Your task to perform on an android device: install app "Spotify: Music and Podcasts" Image 0: 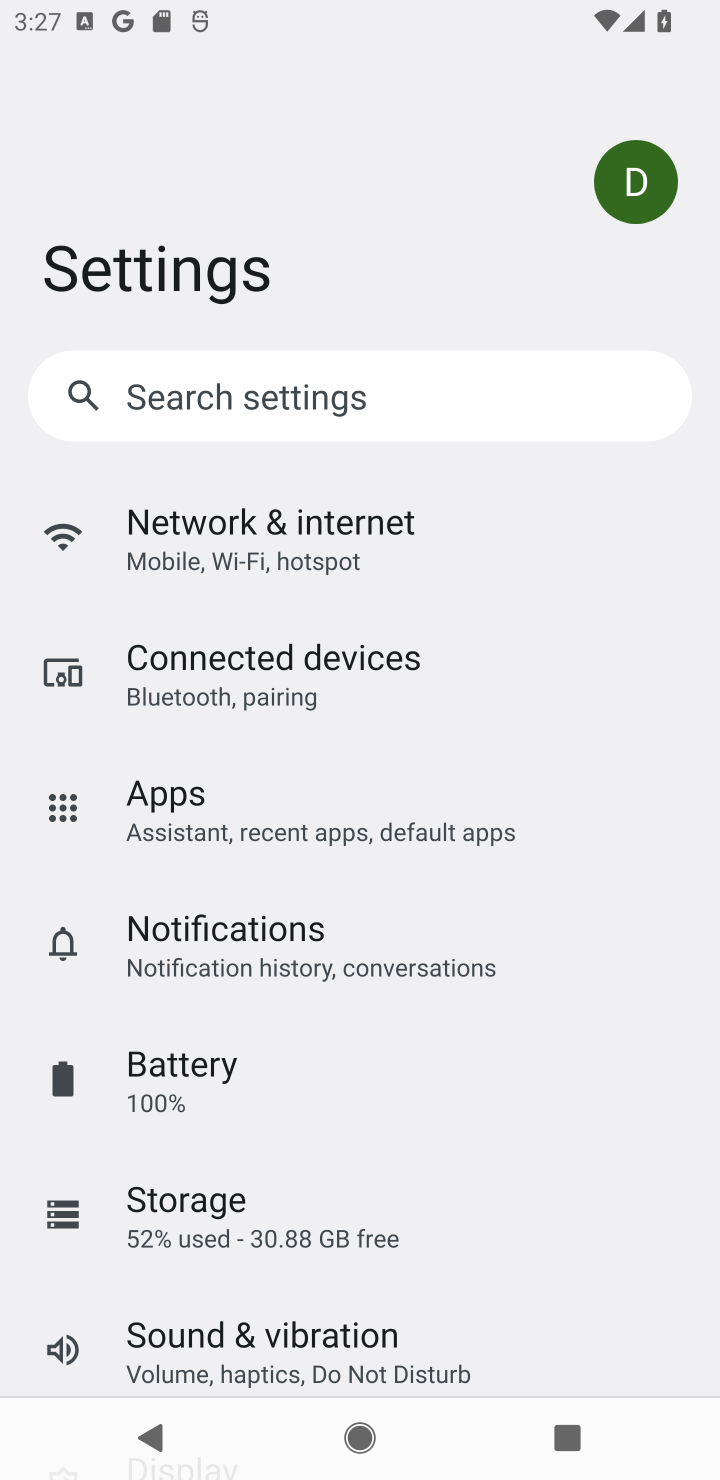
Step 0: press home button
Your task to perform on an android device: install app "Spotify: Music and Podcasts" Image 1: 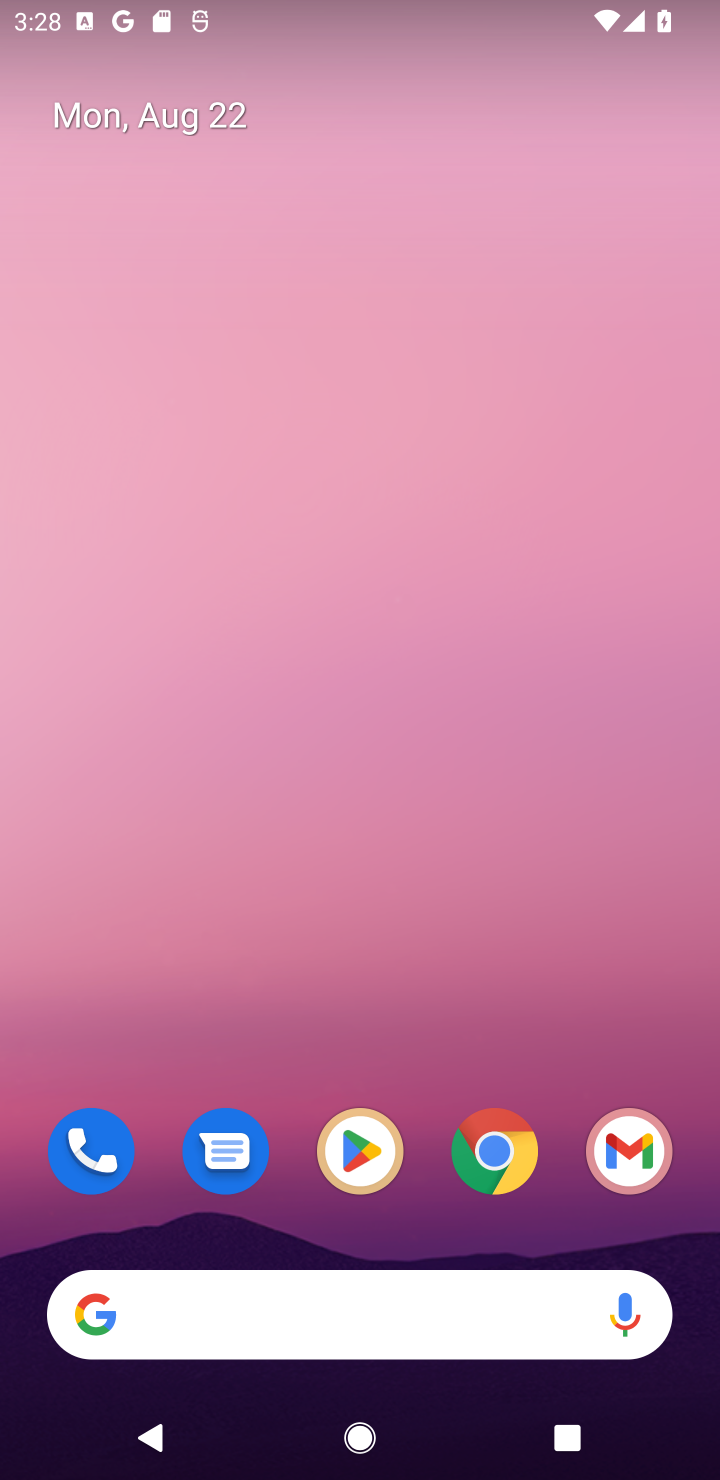
Step 1: click (351, 1147)
Your task to perform on an android device: install app "Spotify: Music and Podcasts" Image 2: 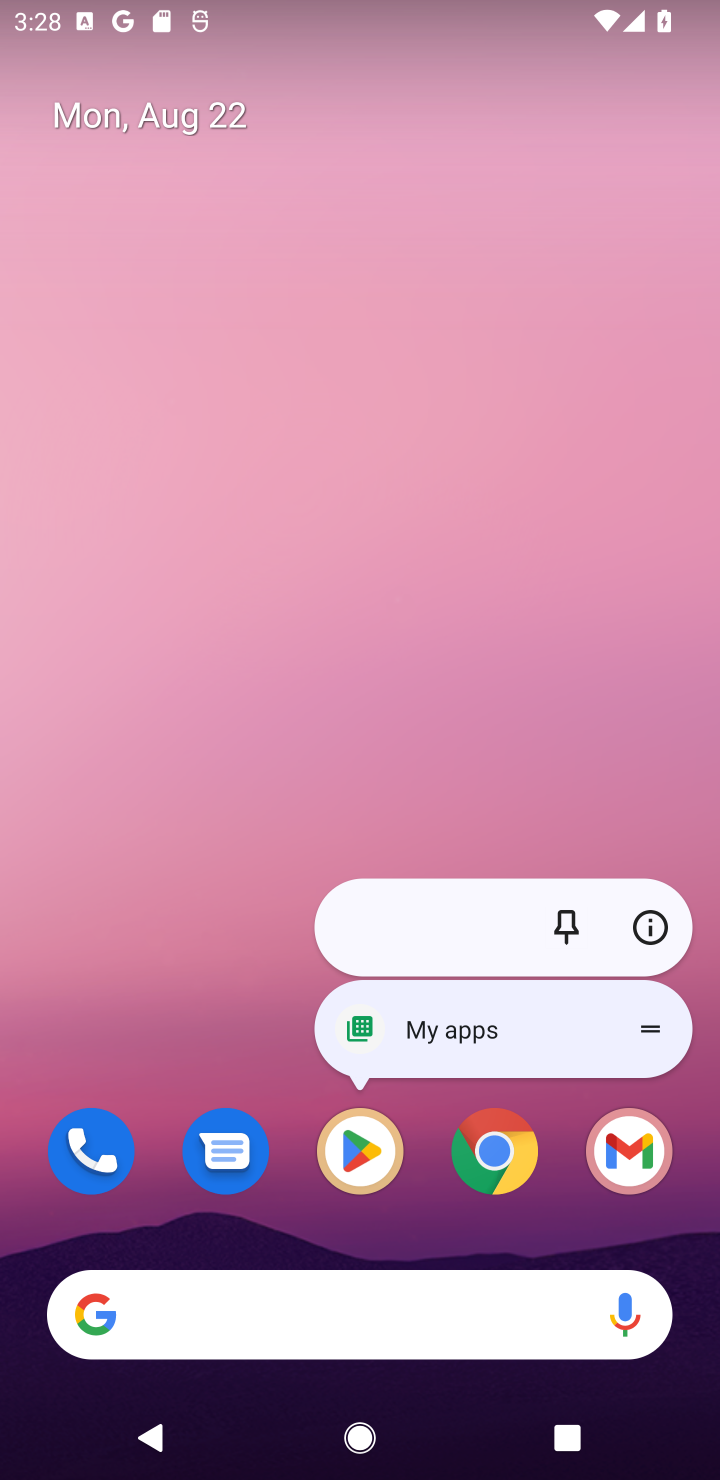
Step 2: click (353, 1147)
Your task to perform on an android device: install app "Spotify: Music and Podcasts" Image 3: 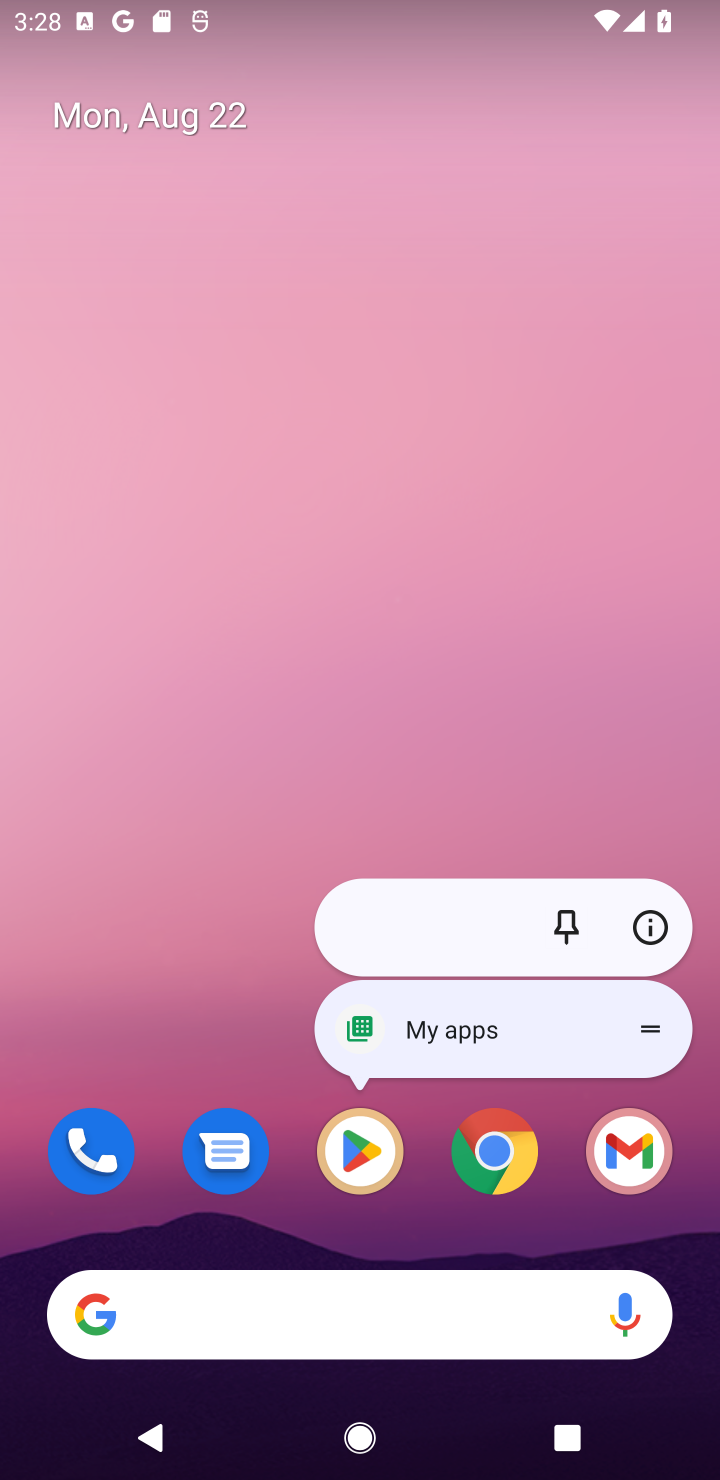
Step 3: click (366, 1163)
Your task to perform on an android device: install app "Spotify: Music and Podcasts" Image 4: 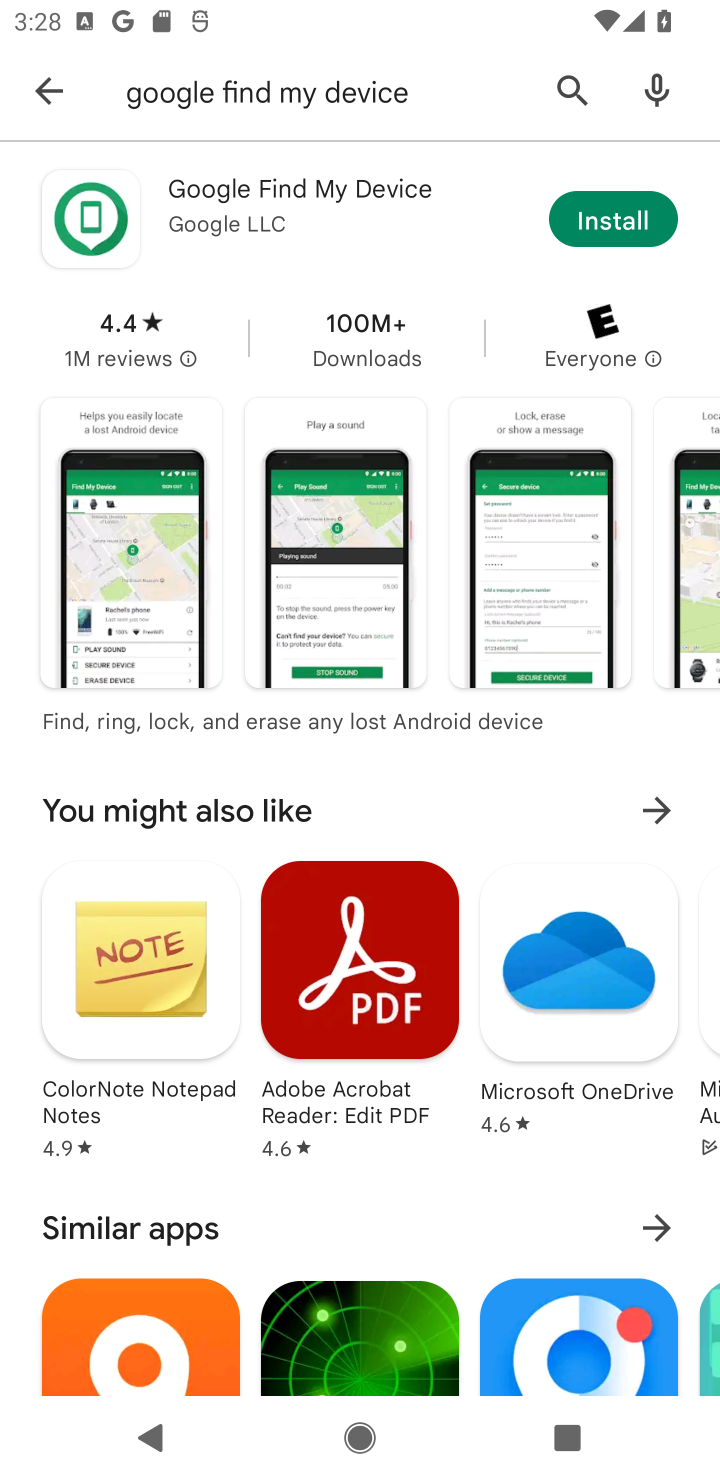
Step 4: click (565, 79)
Your task to perform on an android device: install app "Spotify: Music and Podcasts" Image 5: 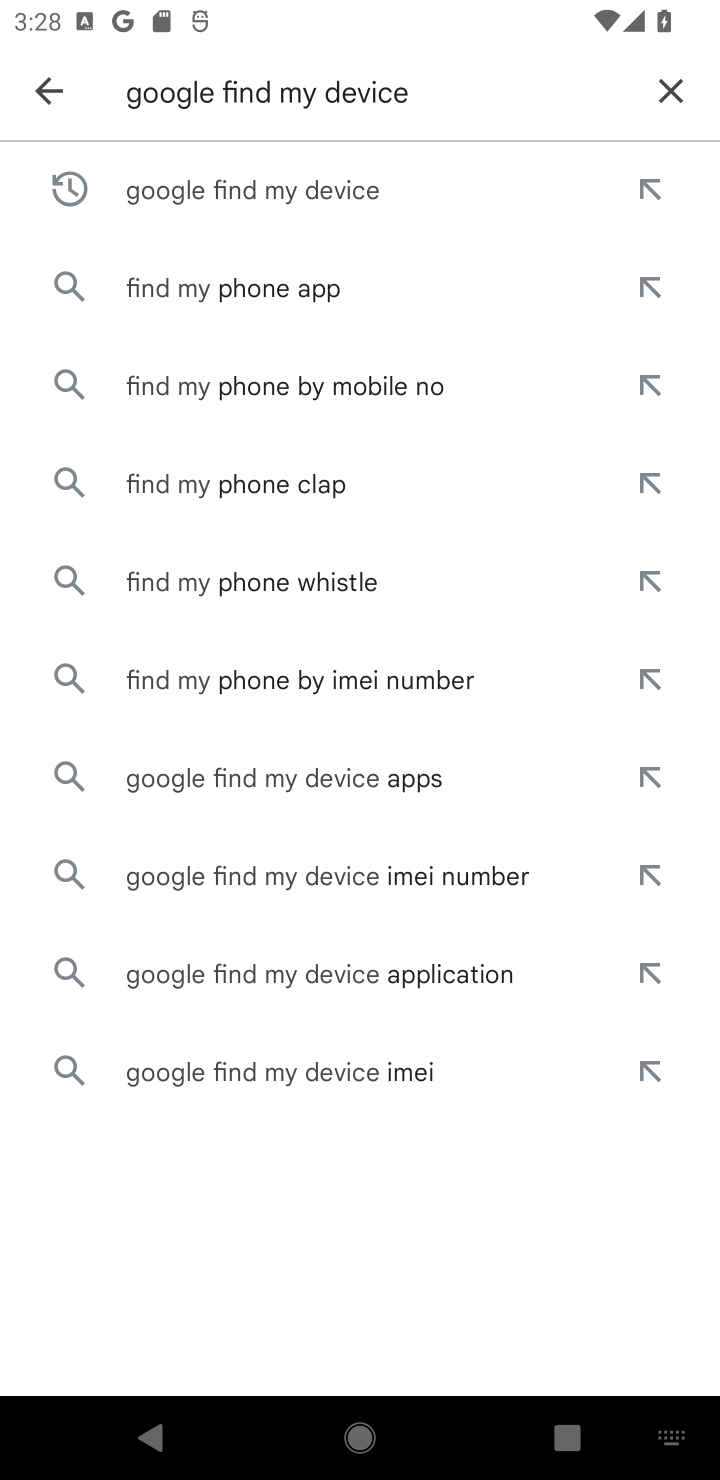
Step 5: click (664, 81)
Your task to perform on an android device: install app "Spotify: Music and Podcasts" Image 6: 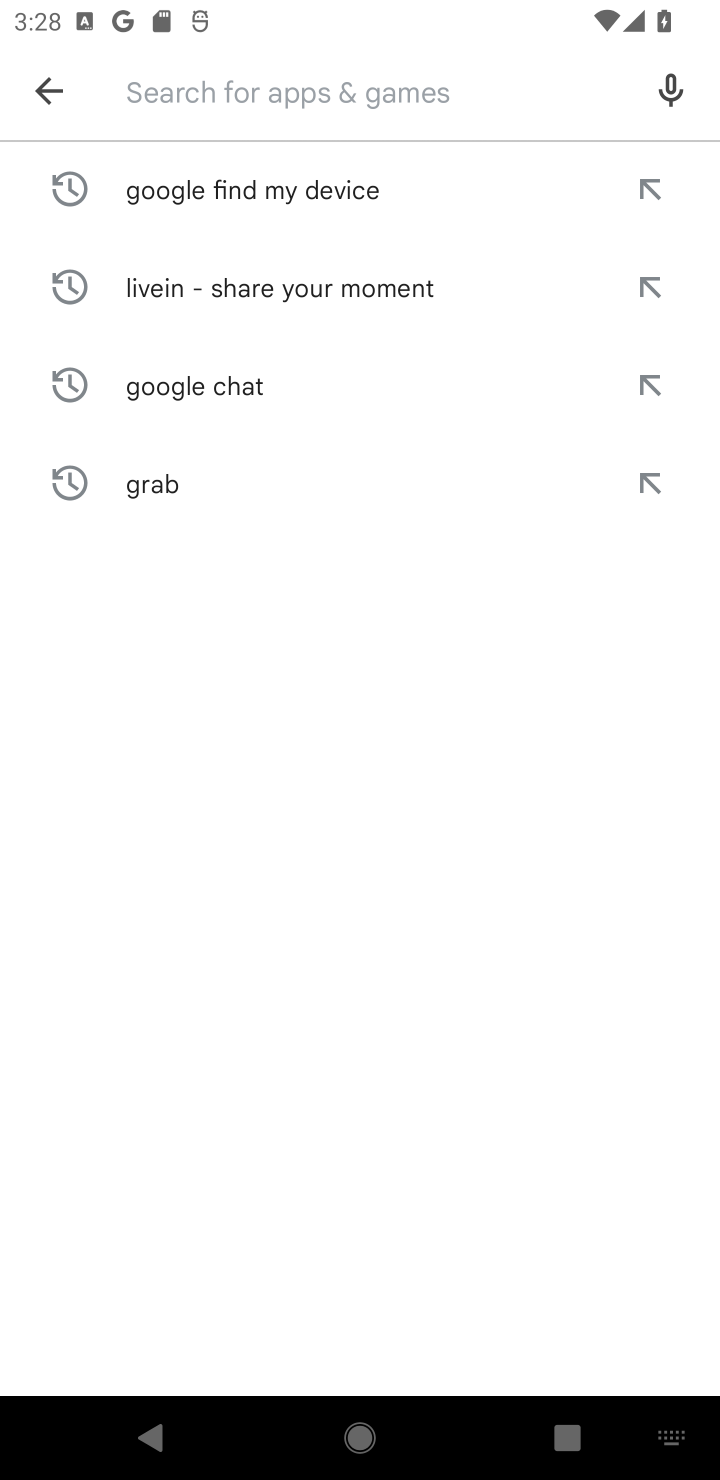
Step 6: type "Spotify: Music and Podcasts"
Your task to perform on an android device: install app "Spotify: Music and Podcasts" Image 7: 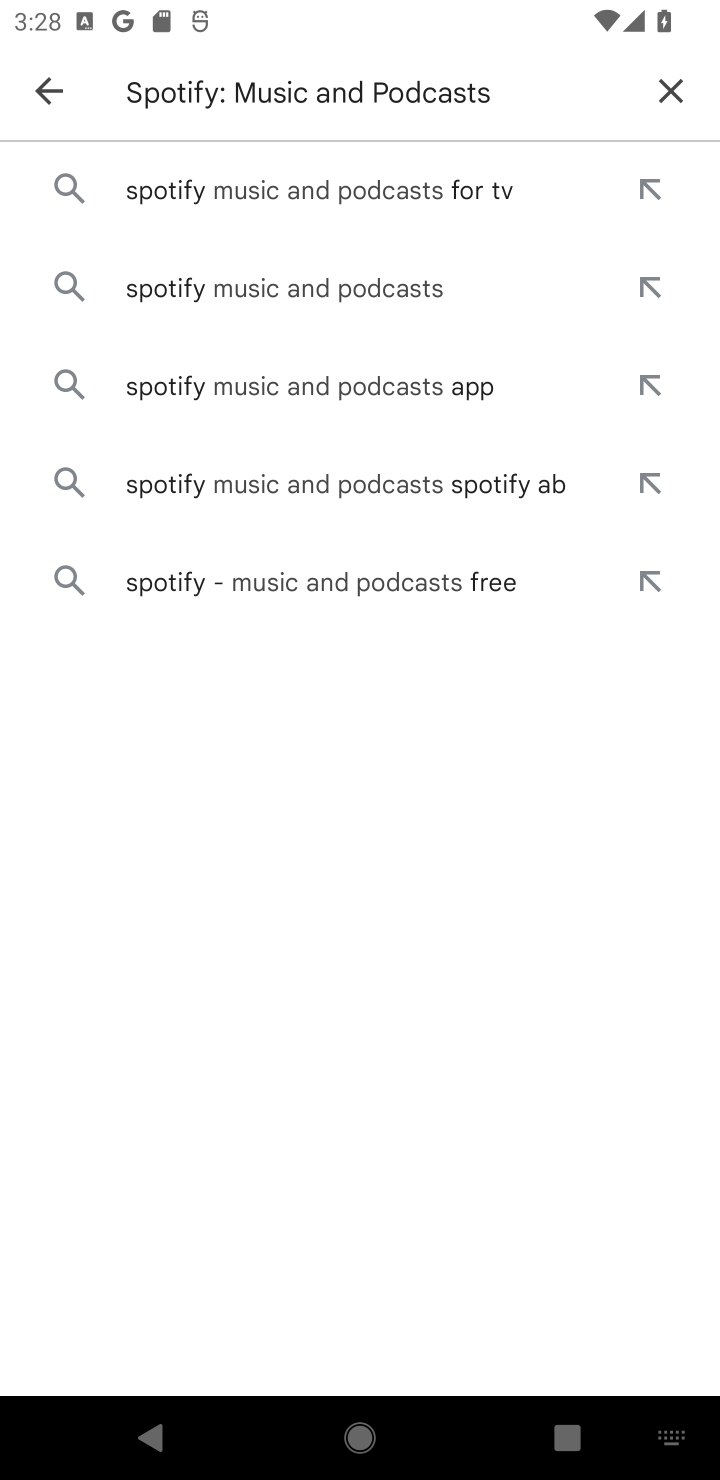
Step 7: click (317, 189)
Your task to perform on an android device: install app "Spotify: Music and Podcasts" Image 8: 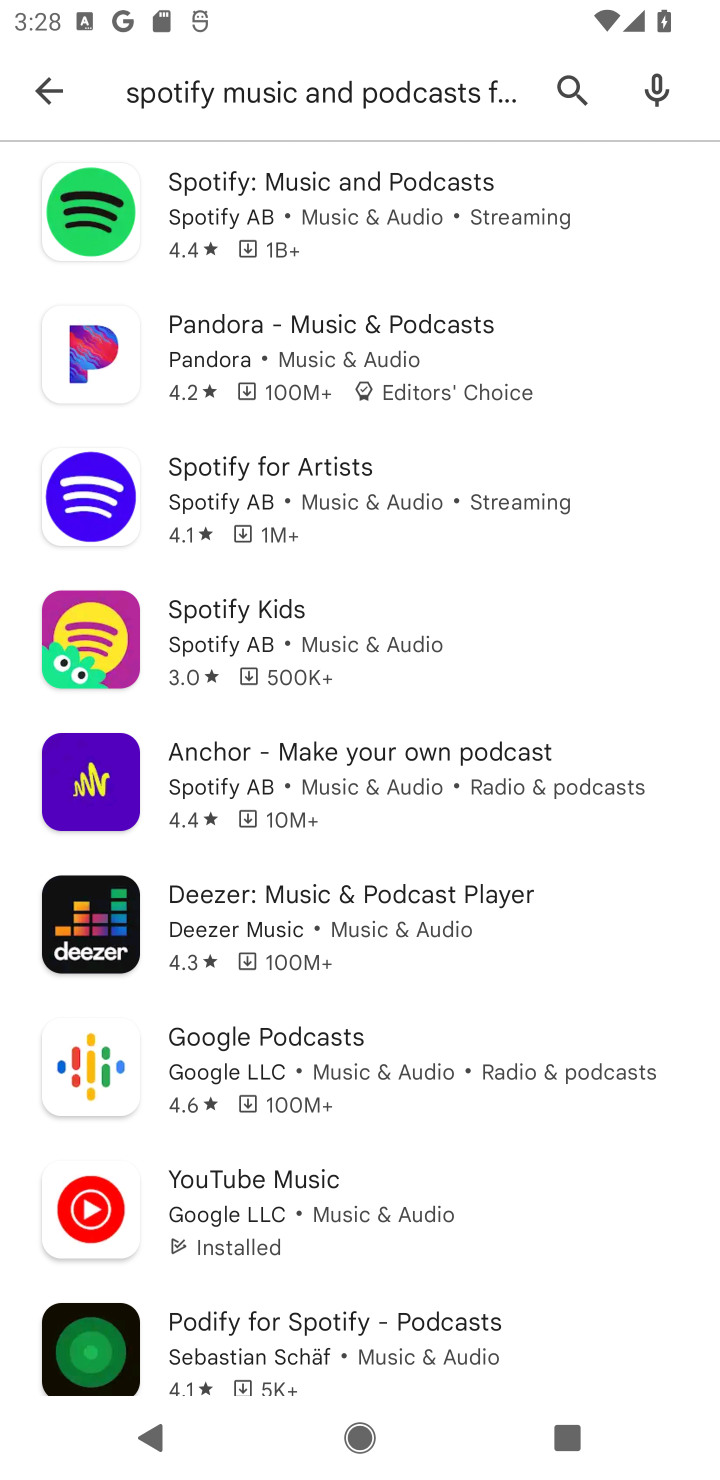
Step 8: click (321, 220)
Your task to perform on an android device: install app "Spotify: Music and Podcasts" Image 9: 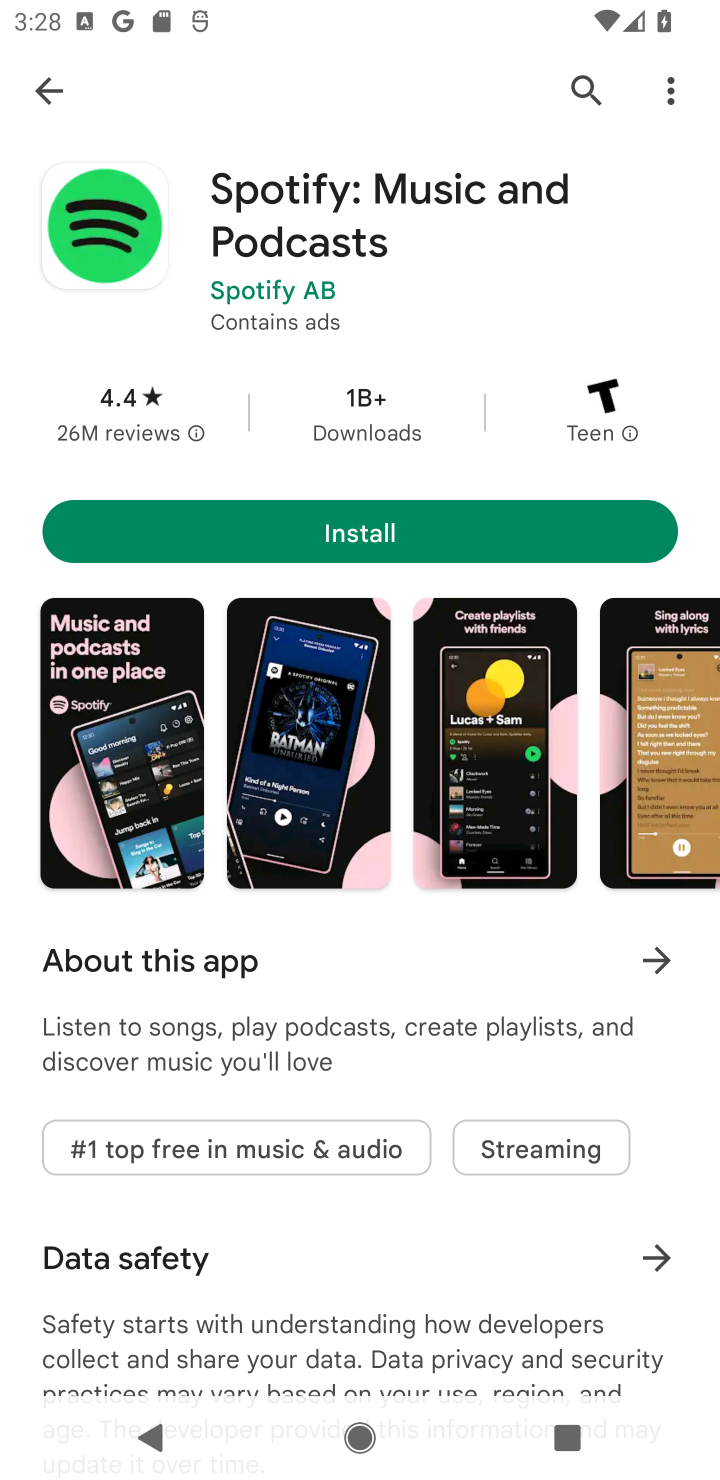
Step 9: click (363, 521)
Your task to perform on an android device: install app "Spotify: Music and Podcasts" Image 10: 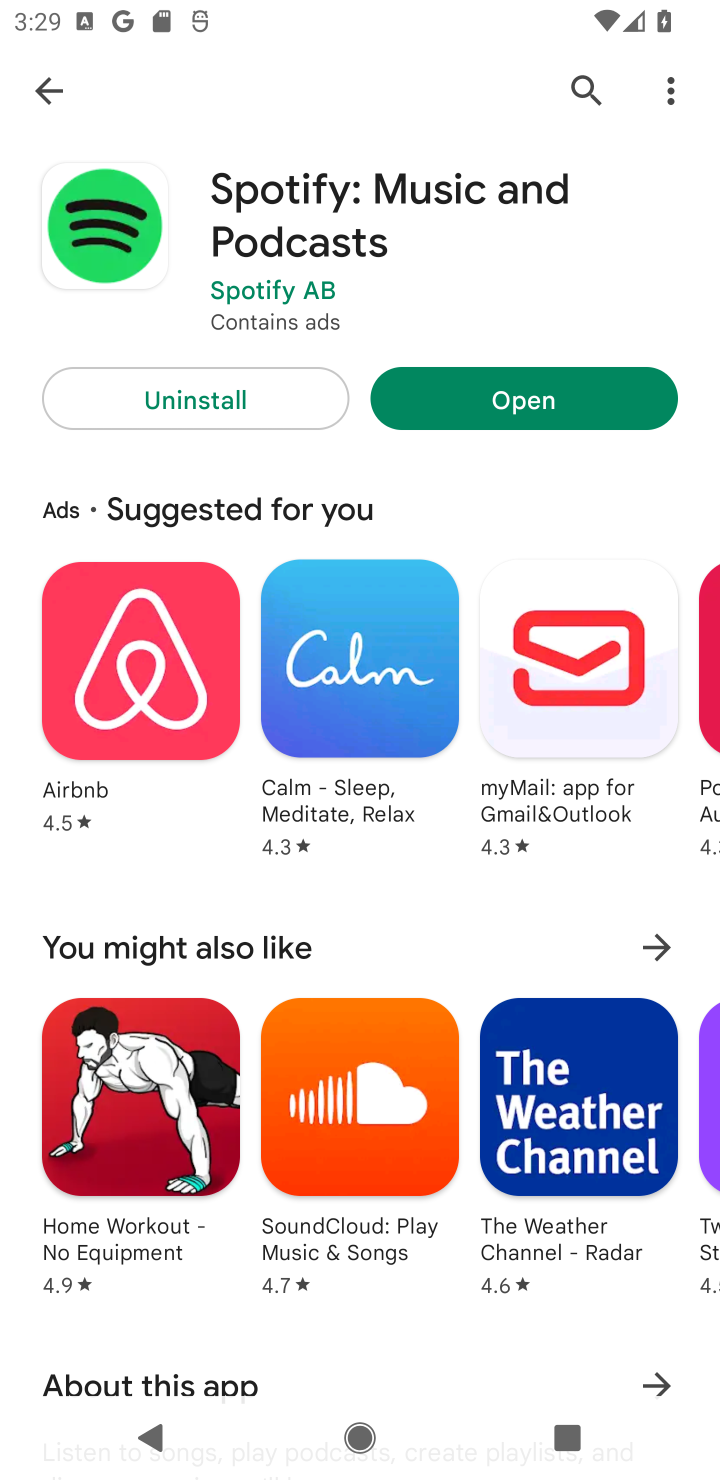
Step 10: task complete